Your task to perform on an android device: set the timer Image 0: 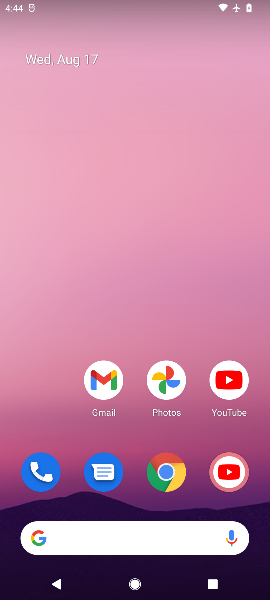
Step 0: drag from (132, 510) to (209, 87)
Your task to perform on an android device: set the timer Image 1: 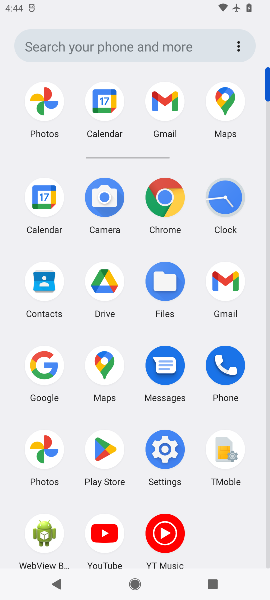
Step 1: click (235, 210)
Your task to perform on an android device: set the timer Image 2: 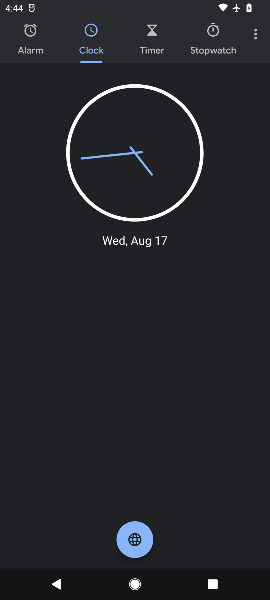
Step 2: click (151, 46)
Your task to perform on an android device: set the timer Image 3: 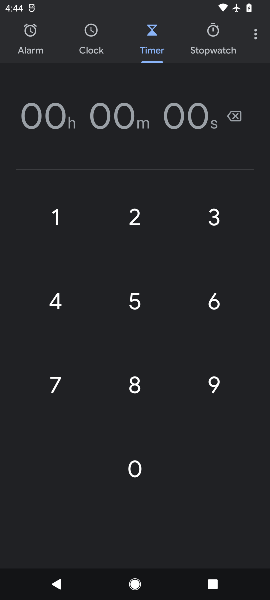
Step 3: click (135, 375)
Your task to perform on an android device: set the timer Image 4: 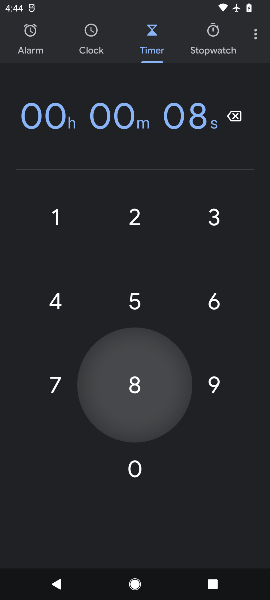
Step 4: click (135, 300)
Your task to perform on an android device: set the timer Image 5: 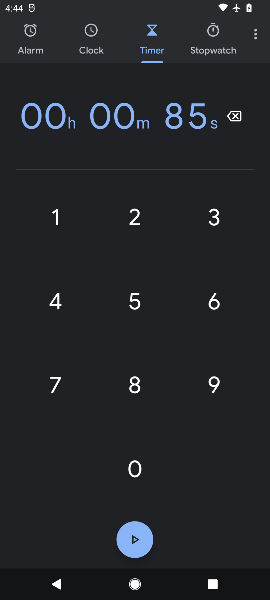
Step 5: click (58, 384)
Your task to perform on an android device: set the timer Image 6: 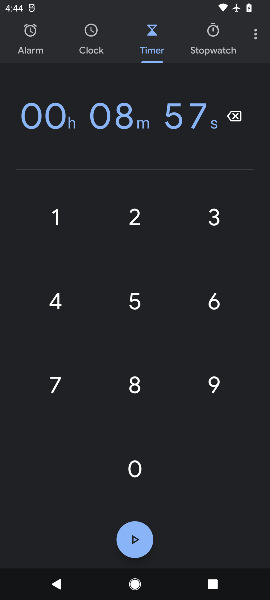
Step 6: click (146, 542)
Your task to perform on an android device: set the timer Image 7: 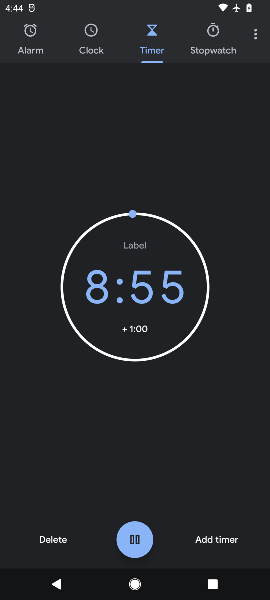
Step 7: task complete